Your task to perform on an android device: delete location history Image 0: 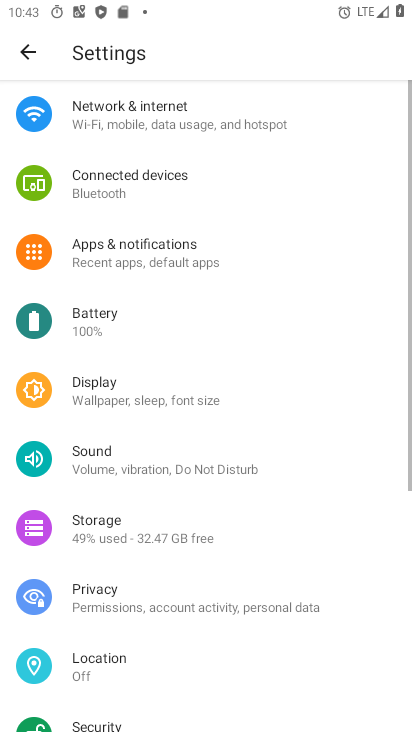
Step 0: press home button
Your task to perform on an android device: delete location history Image 1: 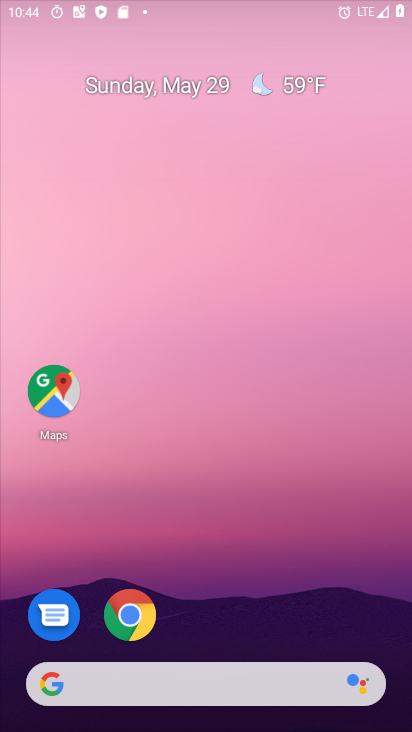
Step 1: drag from (238, 616) to (300, 0)
Your task to perform on an android device: delete location history Image 2: 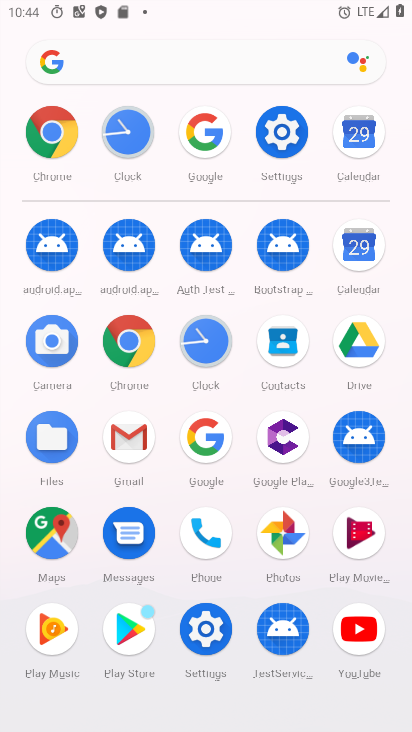
Step 2: click (284, 132)
Your task to perform on an android device: delete location history Image 3: 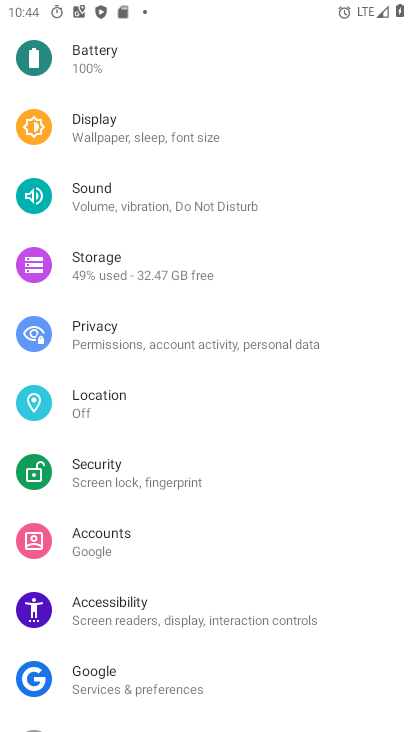
Step 3: click (133, 400)
Your task to perform on an android device: delete location history Image 4: 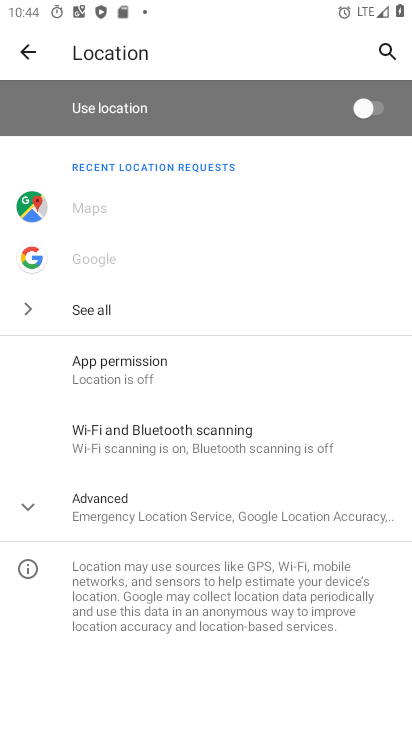
Step 4: click (110, 506)
Your task to perform on an android device: delete location history Image 5: 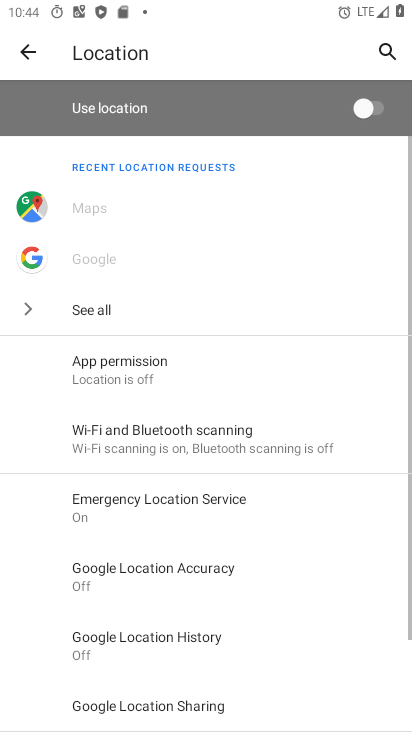
Step 5: drag from (261, 475) to (258, 277)
Your task to perform on an android device: delete location history Image 6: 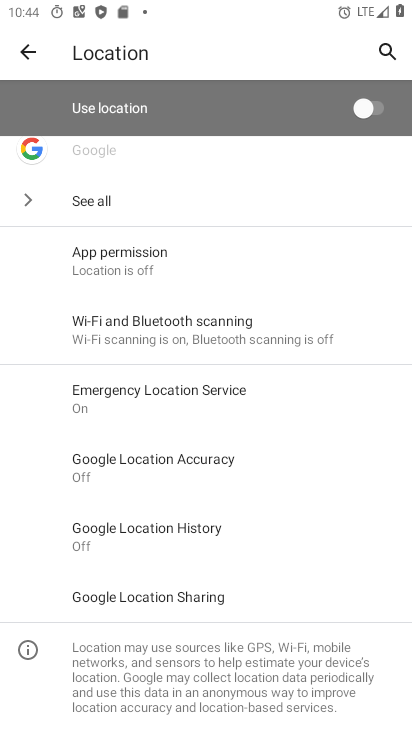
Step 6: click (145, 531)
Your task to perform on an android device: delete location history Image 7: 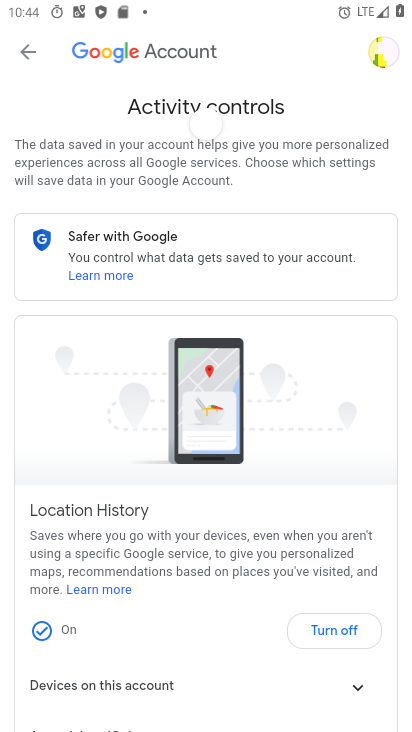
Step 7: drag from (230, 574) to (246, 176)
Your task to perform on an android device: delete location history Image 8: 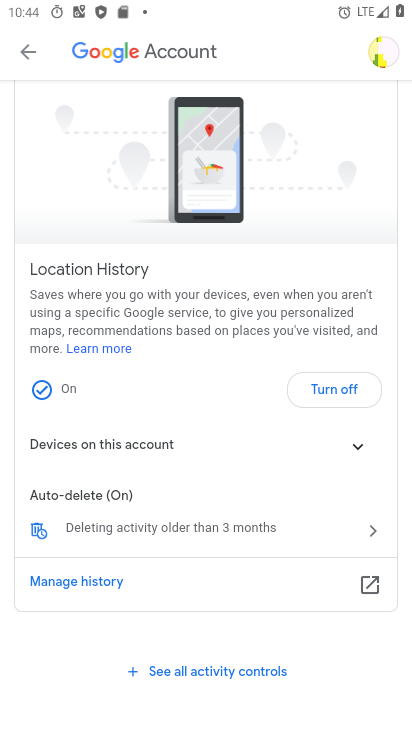
Step 8: click (37, 532)
Your task to perform on an android device: delete location history Image 9: 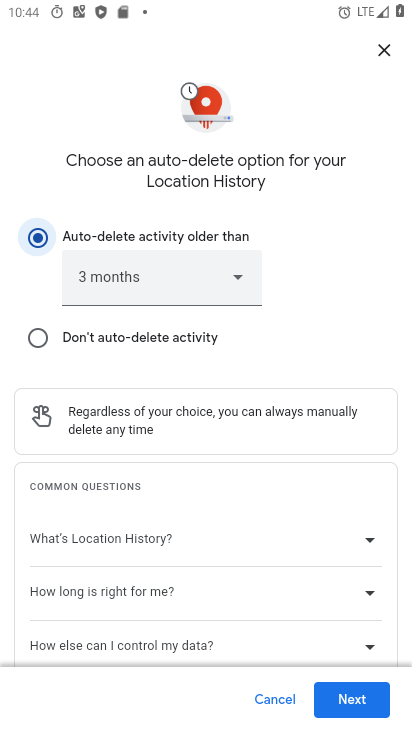
Step 9: click (345, 696)
Your task to perform on an android device: delete location history Image 10: 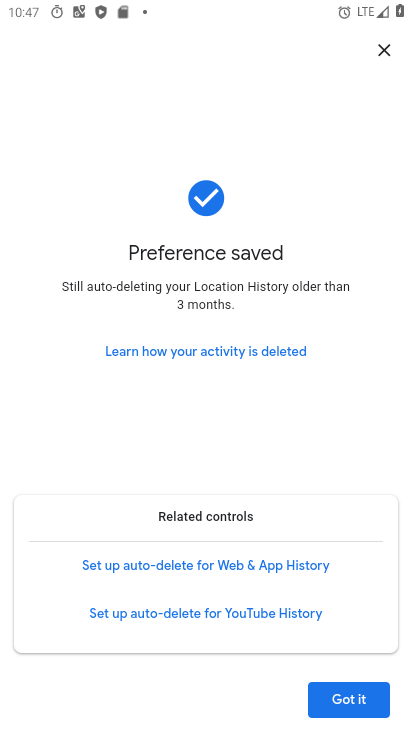
Step 10: task complete